Your task to perform on an android device: stop showing notifications on the lock screen Image 0: 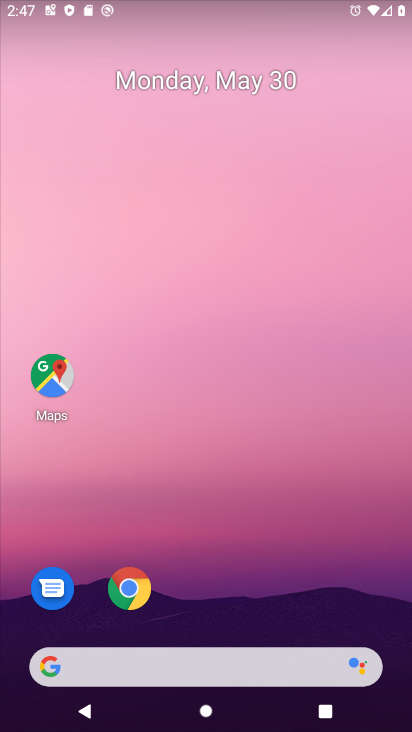
Step 0: drag from (204, 609) to (193, 51)
Your task to perform on an android device: stop showing notifications on the lock screen Image 1: 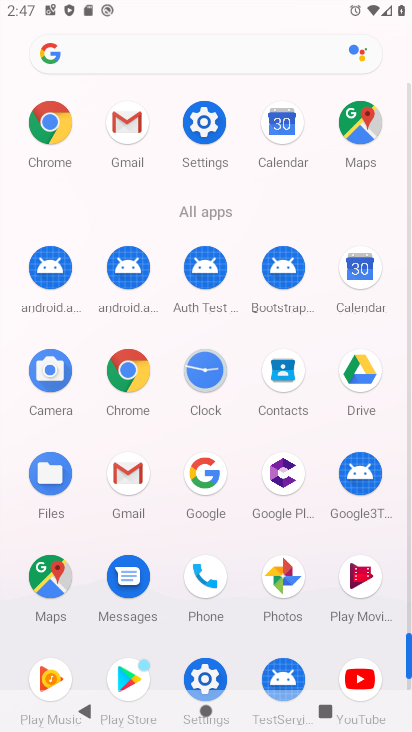
Step 1: click (203, 668)
Your task to perform on an android device: stop showing notifications on the lock screen Image 2: 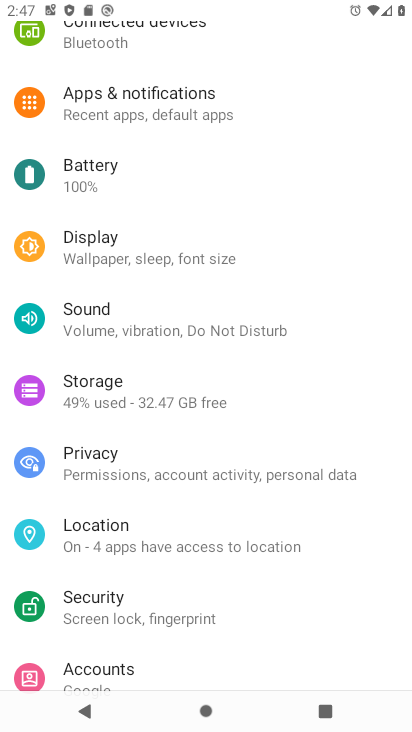
Step 2: click (141, 102)
Your task to perform on an android device: stop showing notifications on the lock screen Image 3: 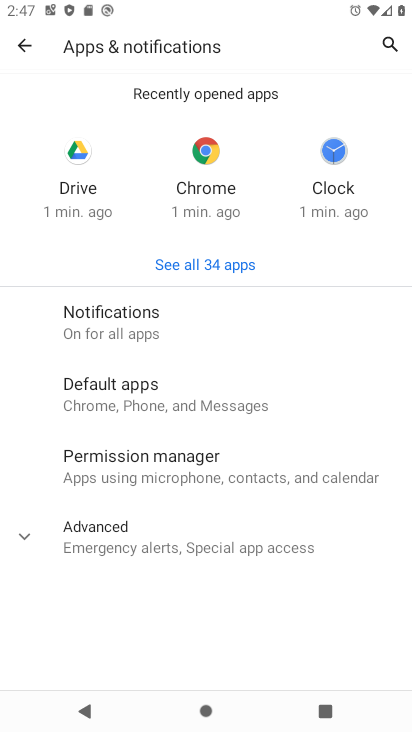
Step 3: click (129, 320)
Your task to perform on an android device: stop showing notifications on the lock screen Image 4: 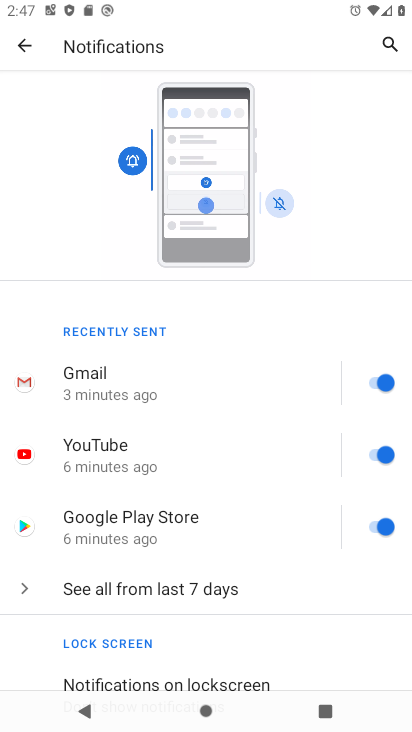
Step 4: drag from (242, 654) to (220, 403)
Your task to perform on an android device: stop showing notifications on the lock screen Image 5: 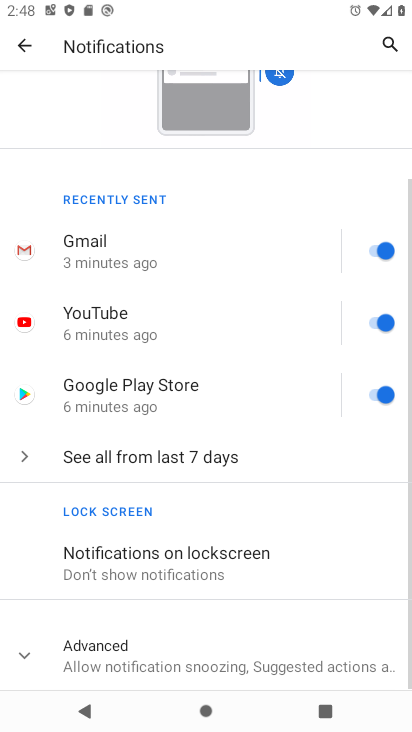
Step 5: click (210, 549)
Your task to perform on an android device: stop showing notifications on the lock screen Image 6: 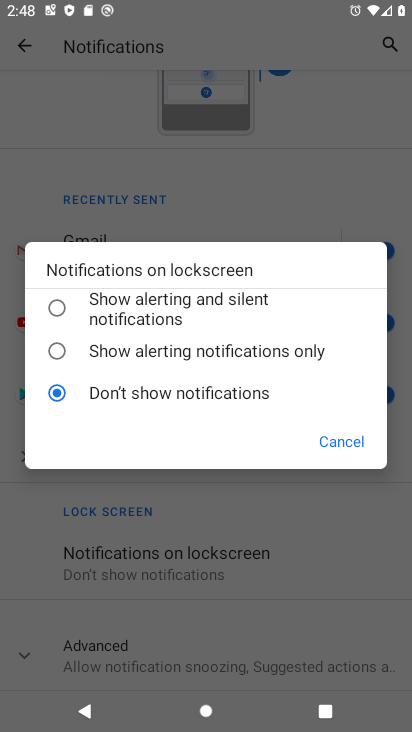
Step 6: task complete